Your task to perform on an android device: open device folders in google photos Image 0: 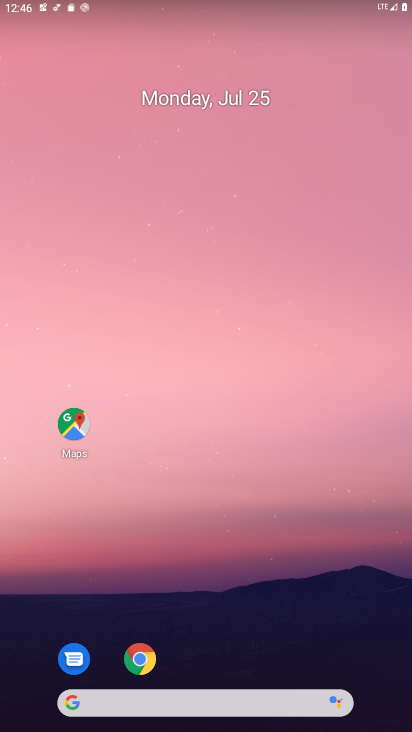
Step 0: drag from (206, 672) to (283, 31)
Your task to perform on an android device: open device folders in google photos Image 1: 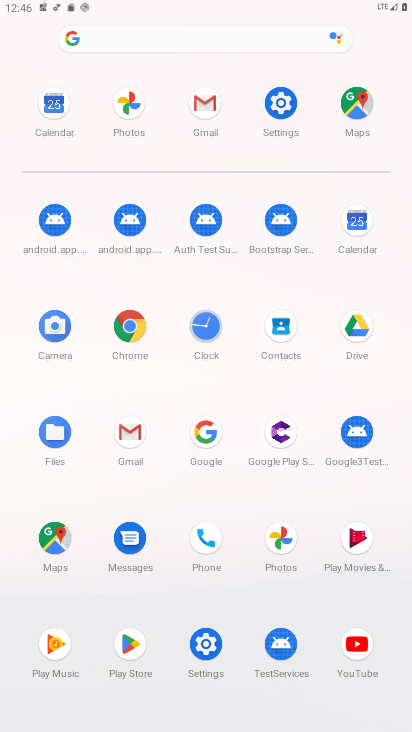
Step 1: click (282, 537)
Your task to perform on an android device: open device folders in google photos Image 2: 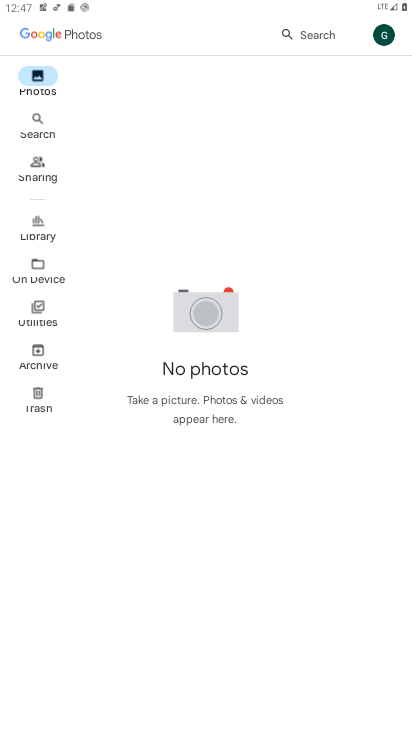
Step 2: click (38, 271)
Your task to perform on an android device: open device folders in google photos Image 3: 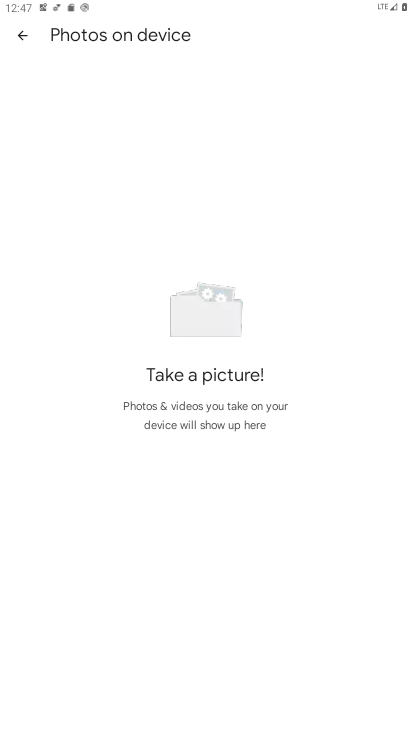
Step 3: task complete